Your task to perform on an android device: Open accessibility settings Image 0: 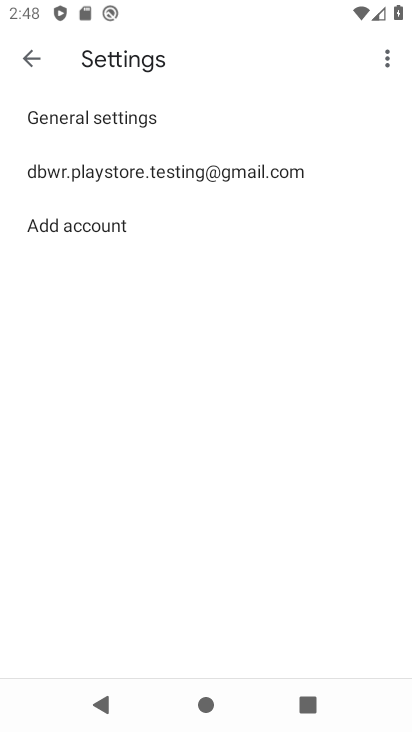
Step 0: press home button
Your task to perform on an android device: Open accessibility settings Image 1: 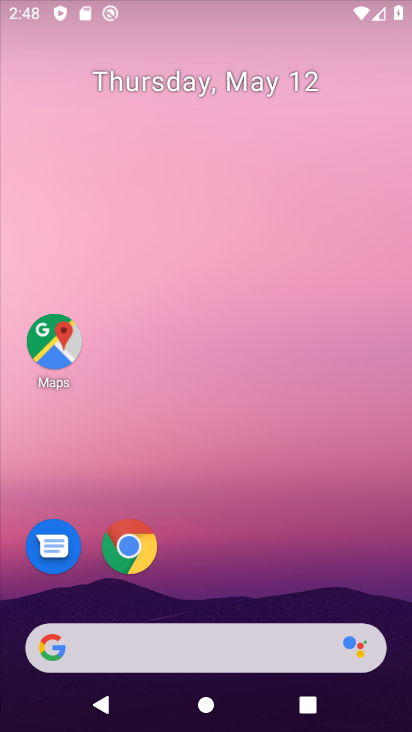
Step 1: drag from (223, 505) to (230, 263)
Your task to perform on an android device: Open accessibility settings Image 2: 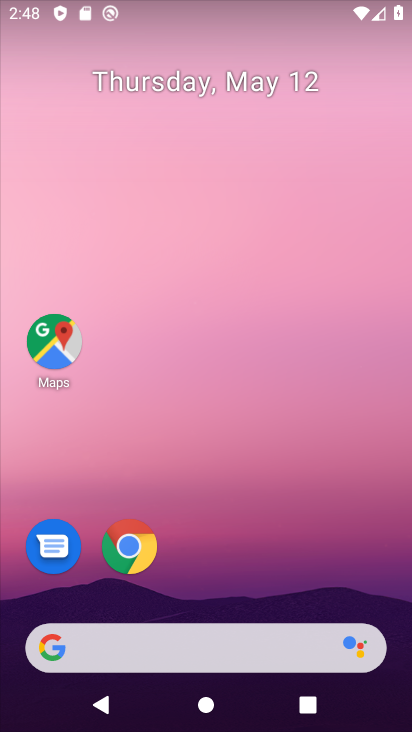
Step 2: drag from (178, 584) to (234, 242)
Your task to perform on an android device: Open accessibility settings Image 3: 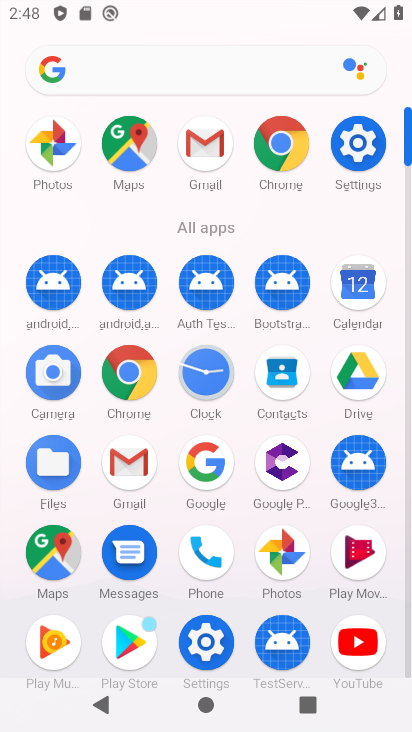
Step 3: click (346, 134)
Your task to perform on an android device: Open accessibility settings Image 4: 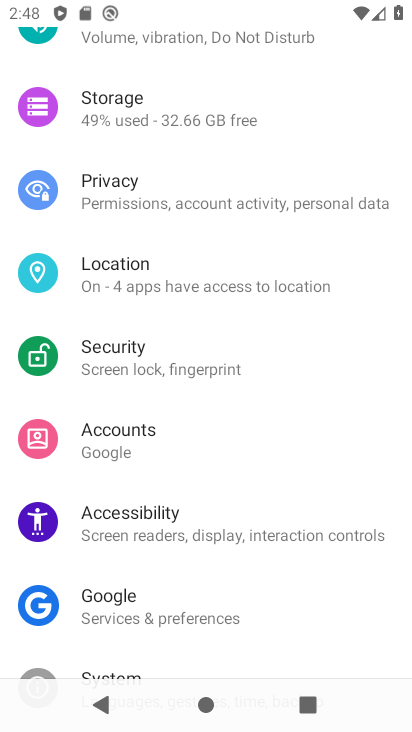
Step 4: click (160, 509)
Your task to perform on an android device: Open accessibility settings Image 5: 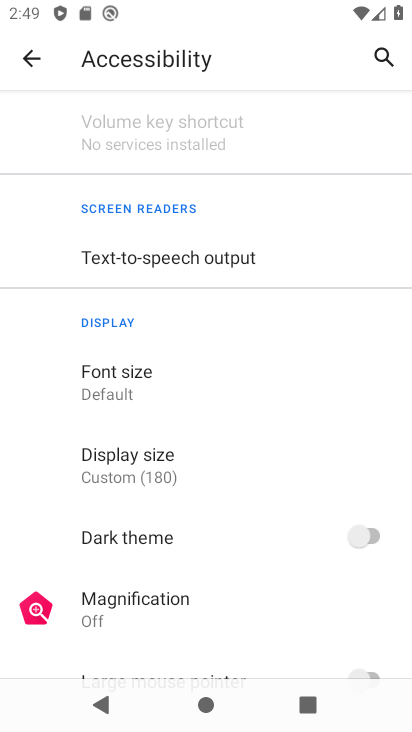
Step 5: task complete